Your task to perform on an android device: Go to Google Image 0: 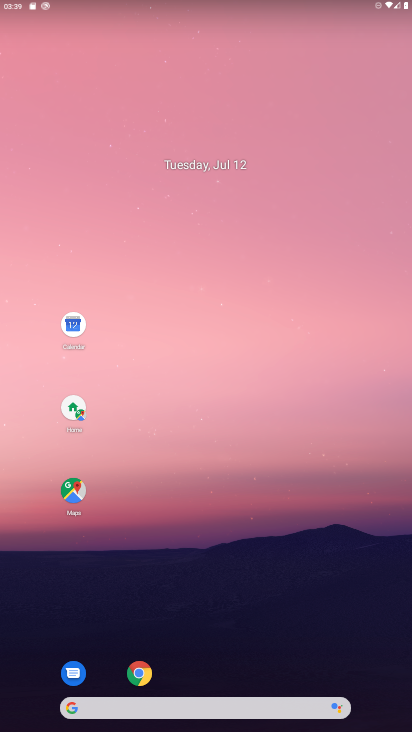
Step 0: drag from (210, 681) to (213, 370)
Your task to perform on an android device: Go to Google Image 1: 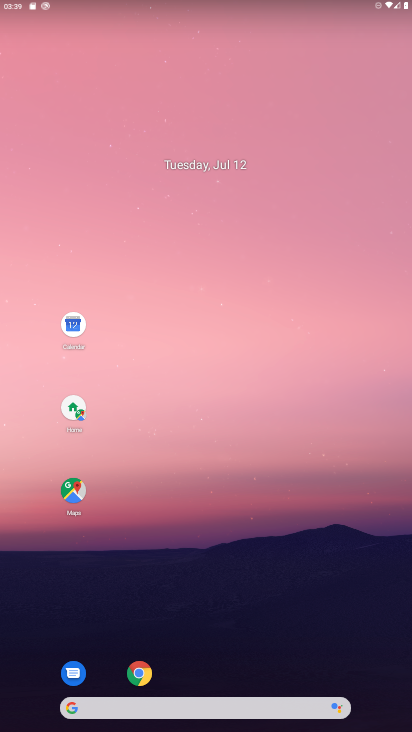
Step 1: drag from (181, 604) to (243, 111)
Your task to perform on an android device: Go to Google Image 2: 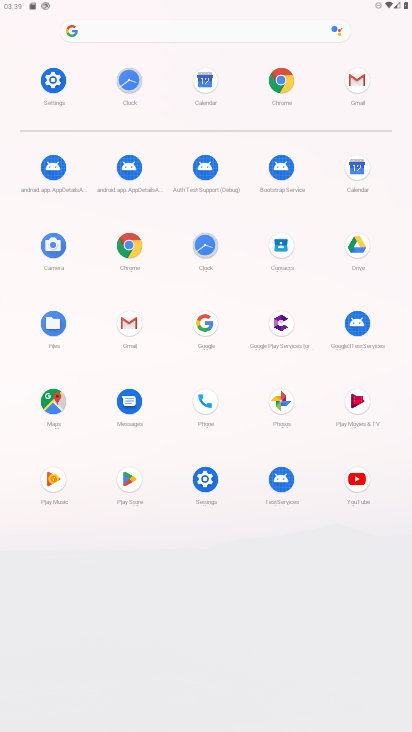
Step 2: click (200, 320)
Your task to perform on an android device: Go to Google Image 3: 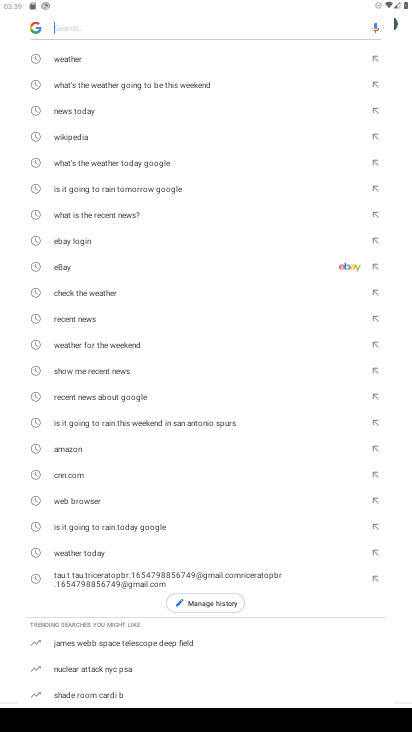
Step 3: task complete